Your task to perform on an android device: turn off smart reply in the gmail app Image 0: 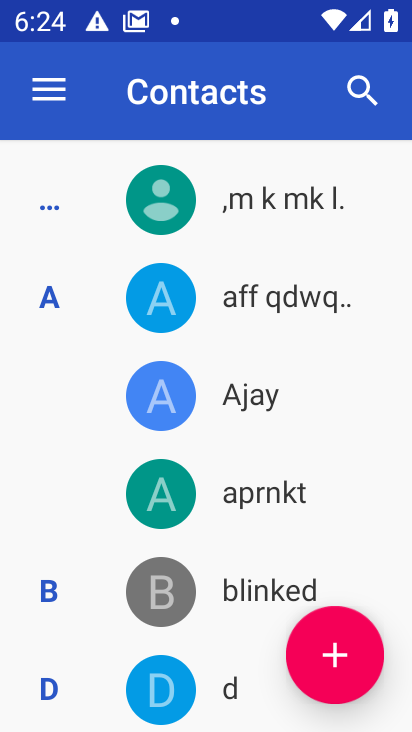
Step 0: press home button
Your task to perform on an android device: turn off smart reply in the gmail app Image 1: 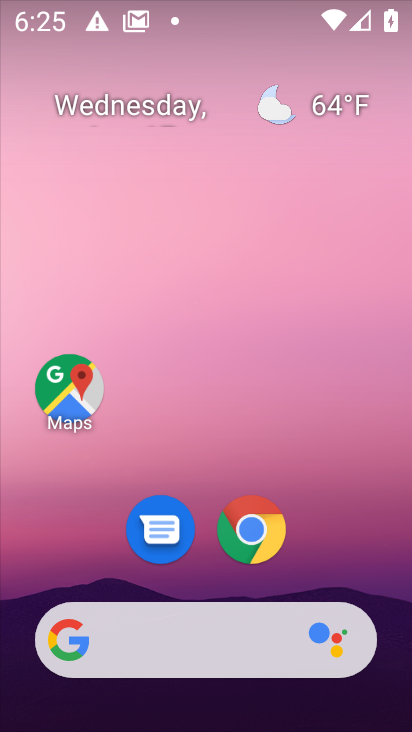
Step 1: click (200, 585)
Your task to perform on an android device: turn off smart reply in the gmail app Image 2: 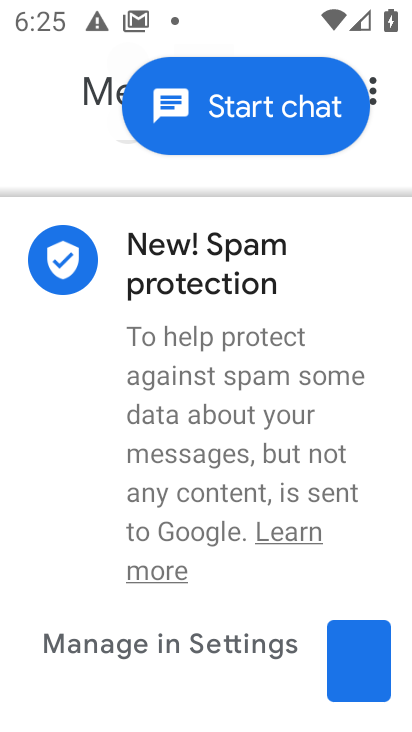
Step 2: press home button
Your task to perform on an android device: turn off smart reply in the gmail app Image 3: 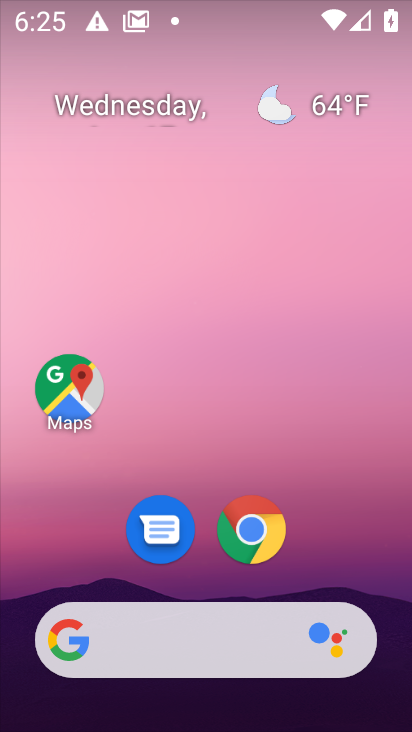
Step 3: drag from (194, 524) to (183, 212)
Your task to perform on an android device: turn off smart reply in the gmail app Image 4: 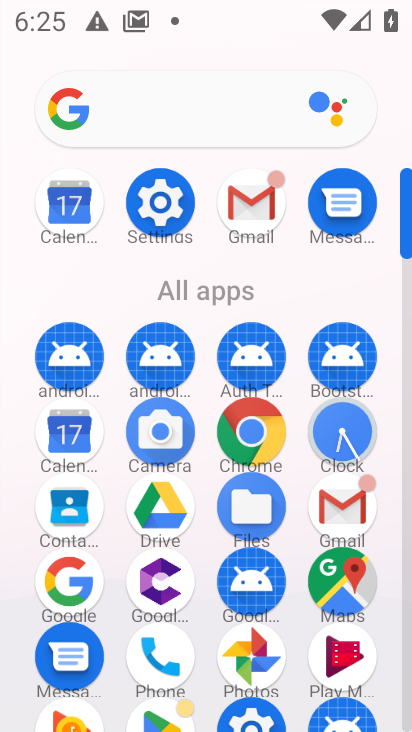
Step 4: click (261, 204)
Your task to perform on an android device: turn off smart reply in the gmail app Image 5: 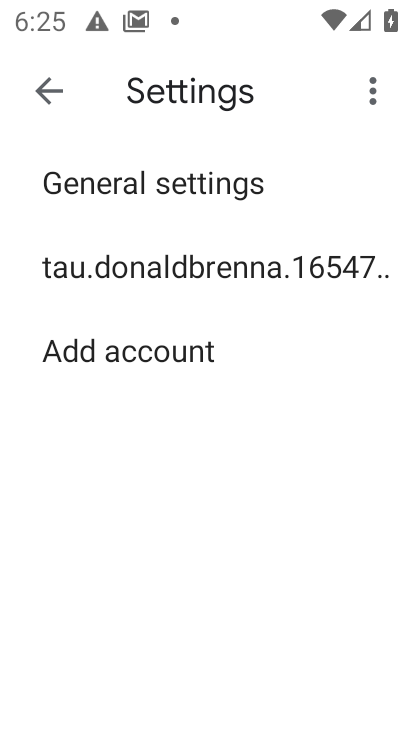
Step 5: click (143, 261)
Your task to perform on an android device: turn off smart reply in the gmail app Image 6: 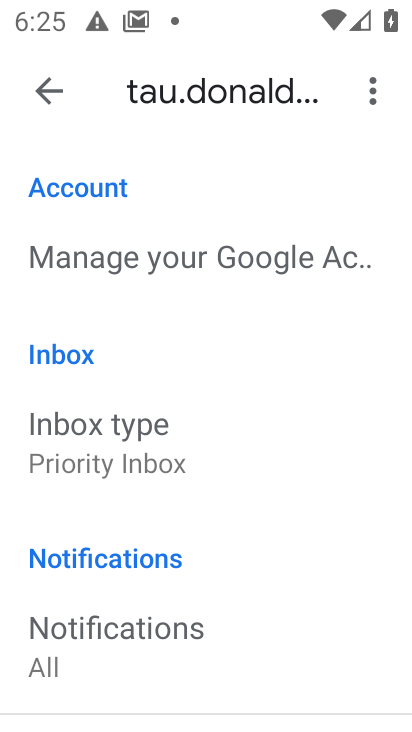
Step 6: drag from (178, 31) to (178, 84)
Your task to perform on an android device: turn off smart reply in the gmail app Image 7: 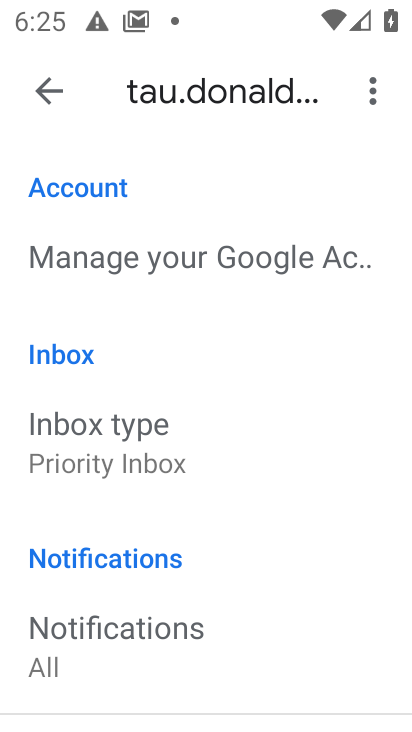
Step 7: drag from (213, 587) to (192, 133)
Your task to perform on an android device: turn off smart reply in the gmail app Image 8: 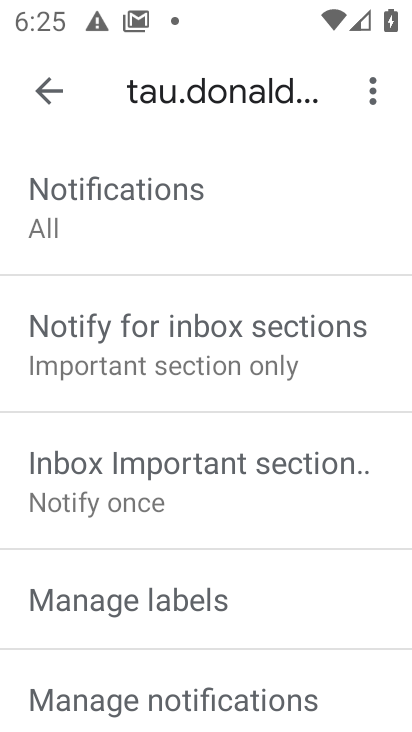
Step 8: drag from (254, 599) to (247, 178)
Your task to perform on an android device: turn off smart reply in the gmail app Image 9: 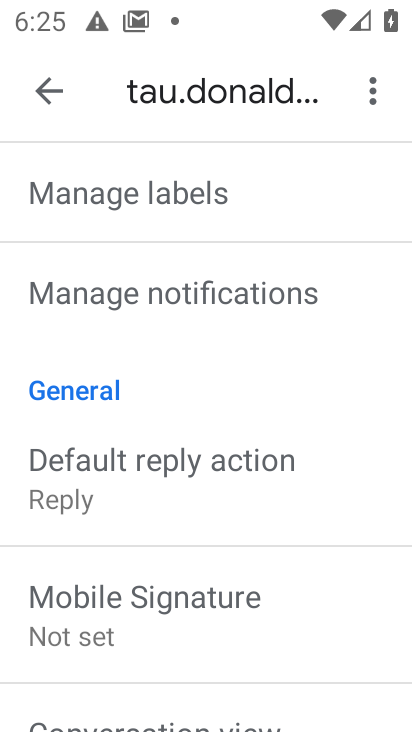
Step 9: drag from (183, 426) to (183, 323)
Your task to perform on an android device: turn off smart reply in the gmail app Image 10: 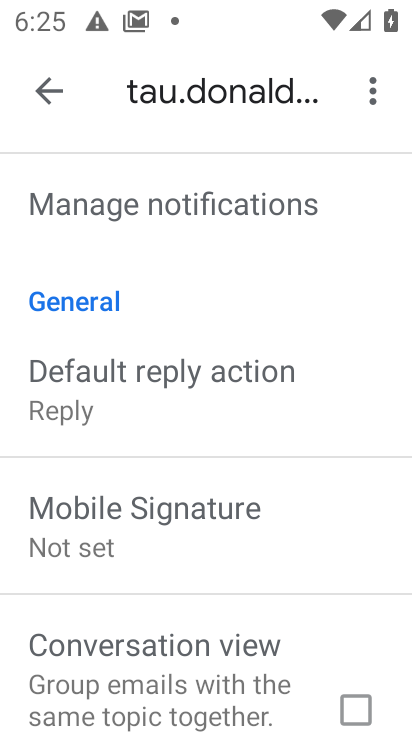
Step 10: drag from (217, 642) to (217, 361)
Your task to perform on an android device: turn off smart reply in the gmail app Image 11: 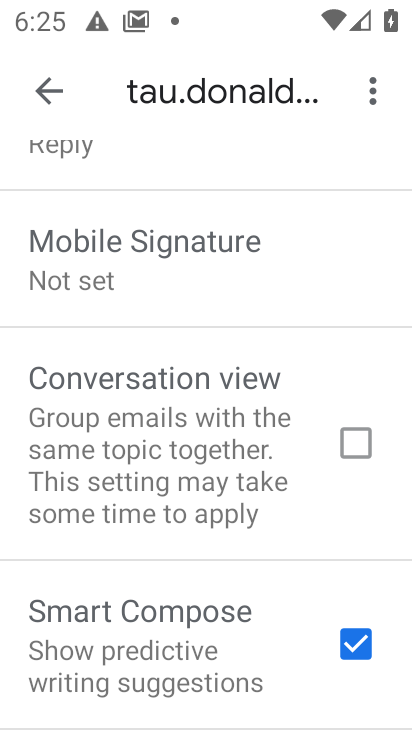
Step 11: drag from (280, 588) to (274, 333)
Your task to perform on an android device: turn off smart reply in the gmail app Image 12: 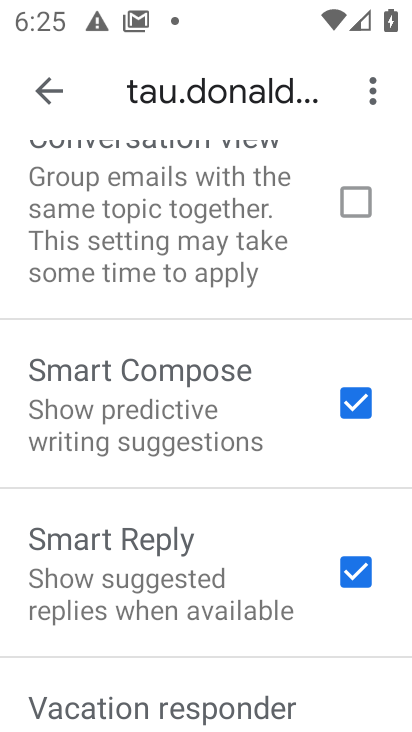
Step 12: drag from (219, 655) to (219, 364)
Your task to perform on an android device: turn off smart reply in the gmail app Image 13: 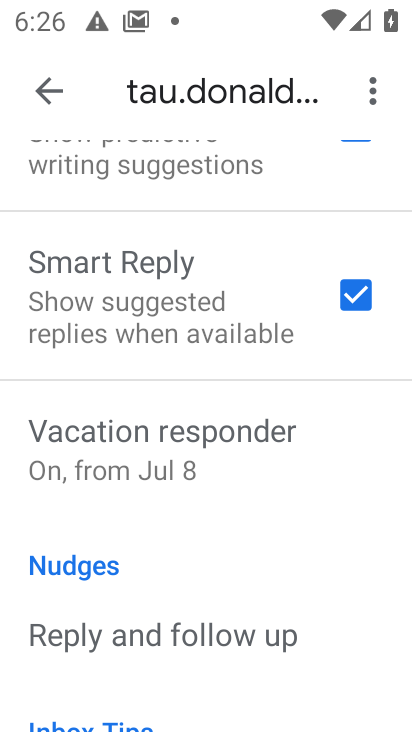
Step 13: drag from (273, 641) to (264, 344)
Your task to perform on an android device: turn off smart reply in the gmail app Image 14: 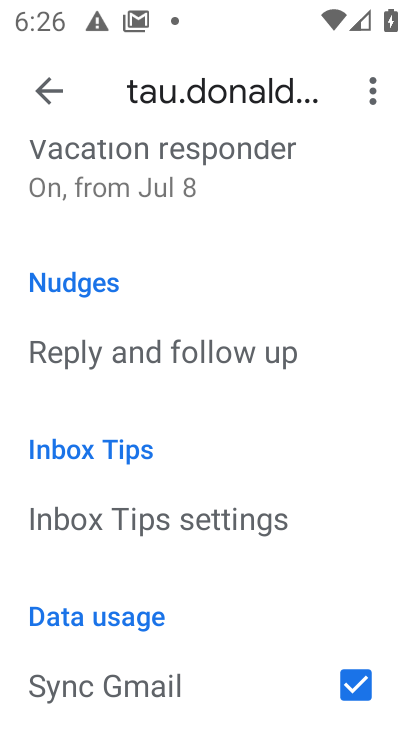
Step 14: drag from (264, 384) to (277, 705)
Your task to perform on an android device: turn off smart reply in the gmail app Image 15: 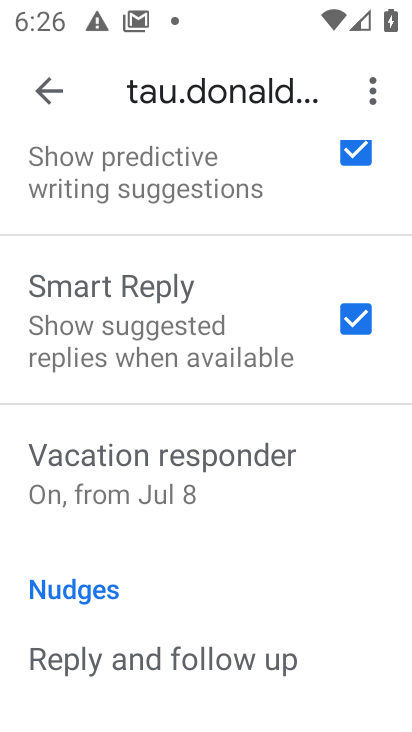
Step 15: click (341, 320)
Your task to perform on an android device: turn off smart reply in the gmail app Image 16: 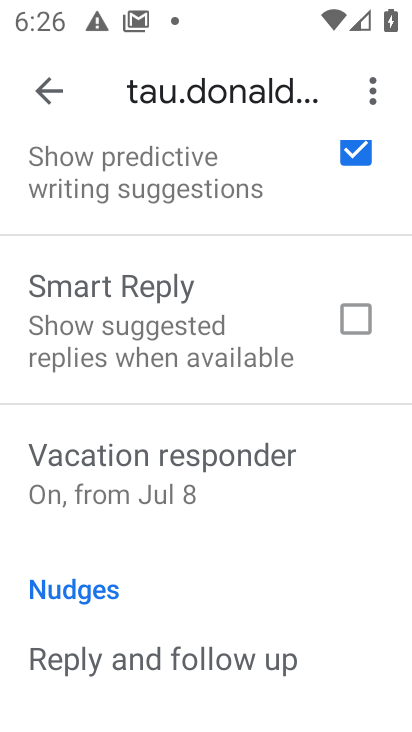
Step 16: task complete